Your task to perform on an android device: Open the web browser Image 0: 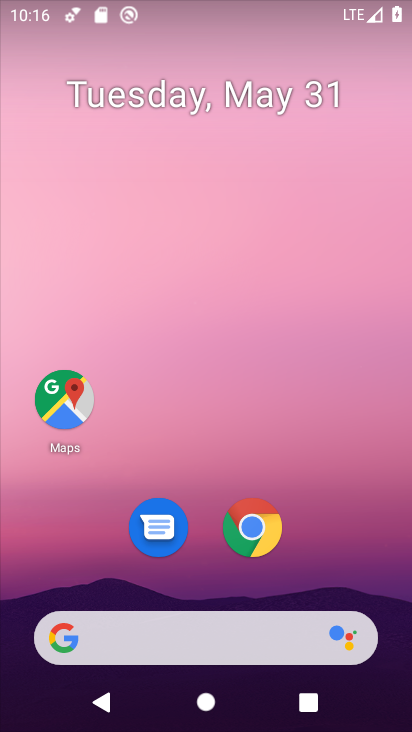
Step 0: click (258, 525)
Your task to perform on an android device: Open the web browser Image 1: 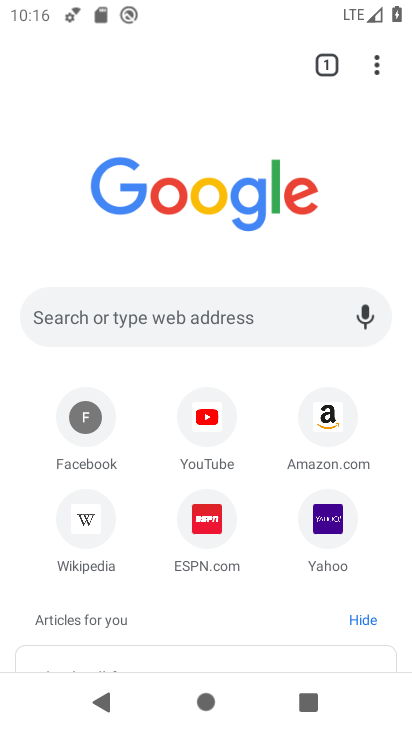
Step 1: task complete